Your task to perform on an android device: Open location settings Image 0: 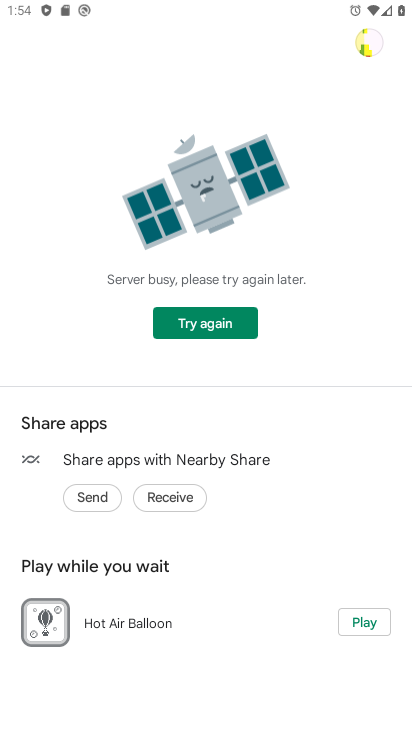
Step 0: press home button
Your task to perform on an android device: Open location settings Image 1: 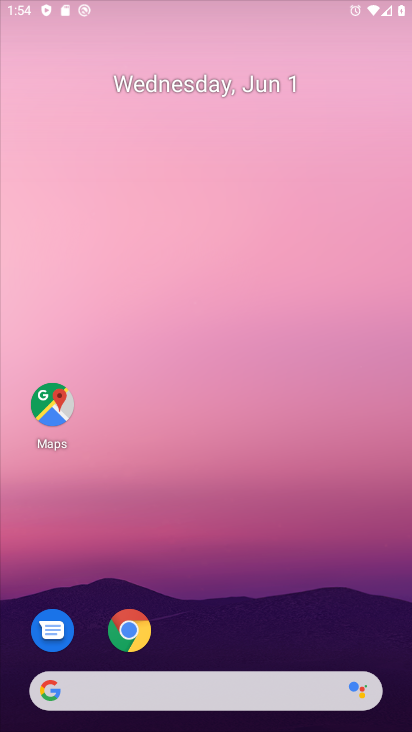
Step 1: drag from (241, 672) to (157, 0)
Your task to perform on an android device: Open location settings Image 2: 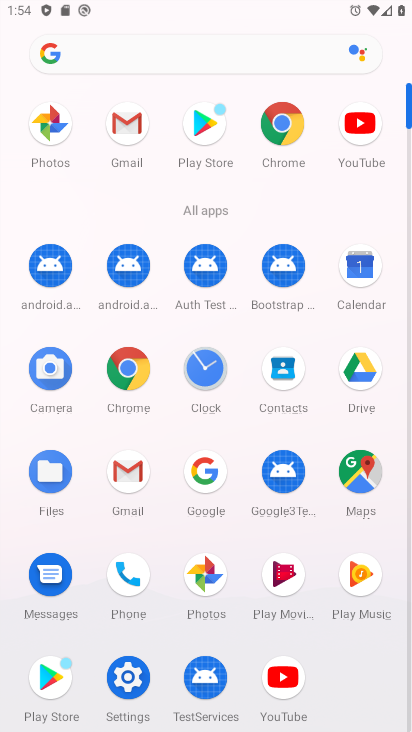
Step 2: click (119, 672)
Your task to perform on an android device: Open location settings Image 3: 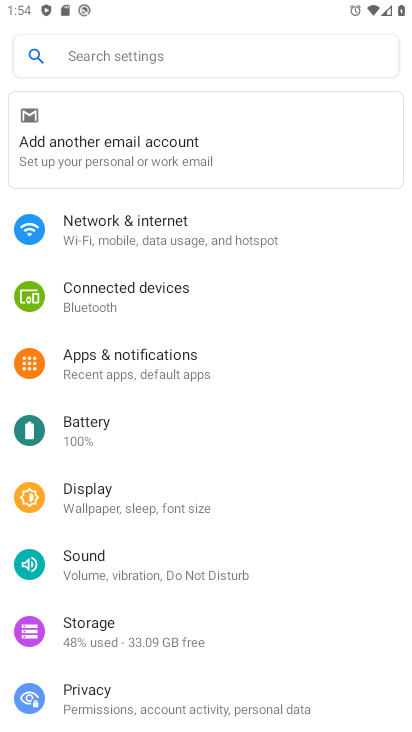
Step 3: drag from (143, 616) to (159, 158)
Your task to perform on an android device: Open location settings Image 4: 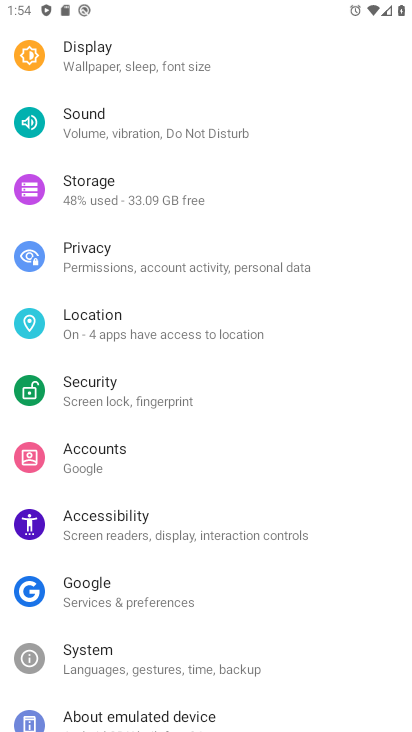
Step 4: click (106, 321)
Your task to perform on an android device: Open location settings Image 5: 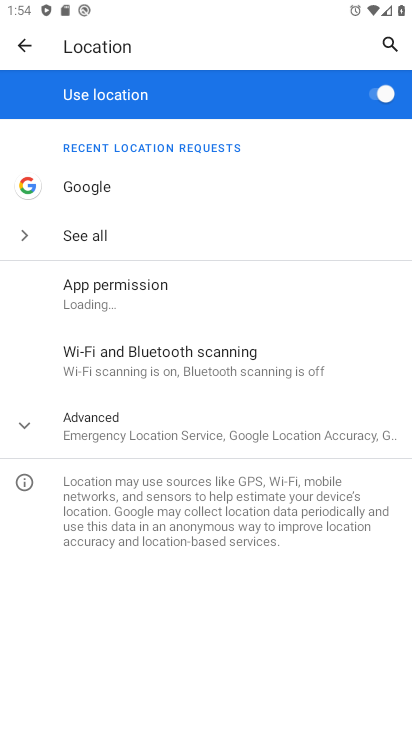
Step 5: task complete